Your task to perform on an android device: turn on the 24-hour format for clock Image 0: 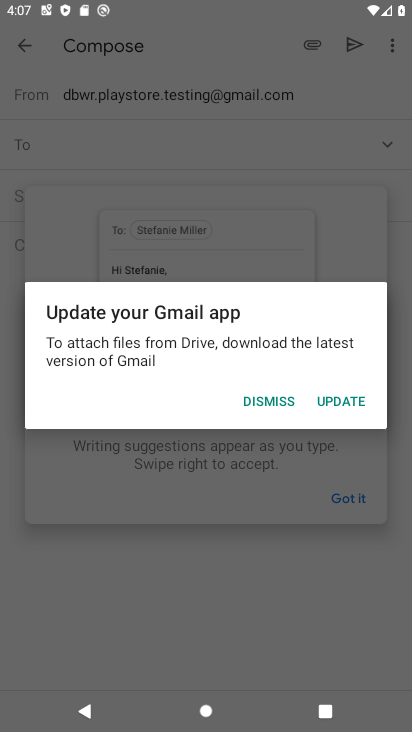
Step 0: press home button
Your task to perform on an android device: turn on the 24-hour format for clock Image 1: 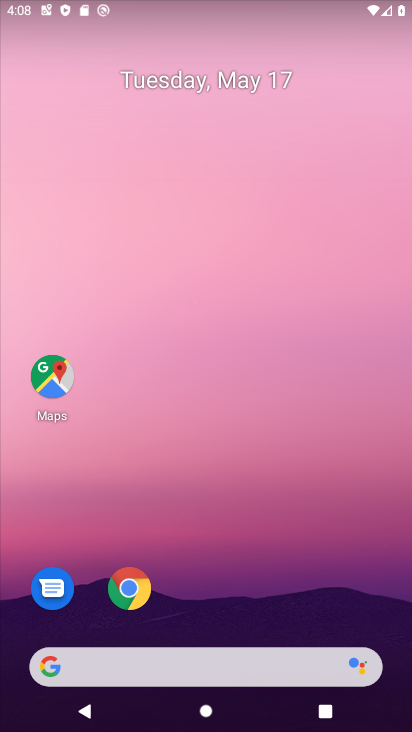
Step 1: drag from (238, 593) to (217, 130)
Your task to perform on an android device: turn on the 24-hour format for clock Image 2: 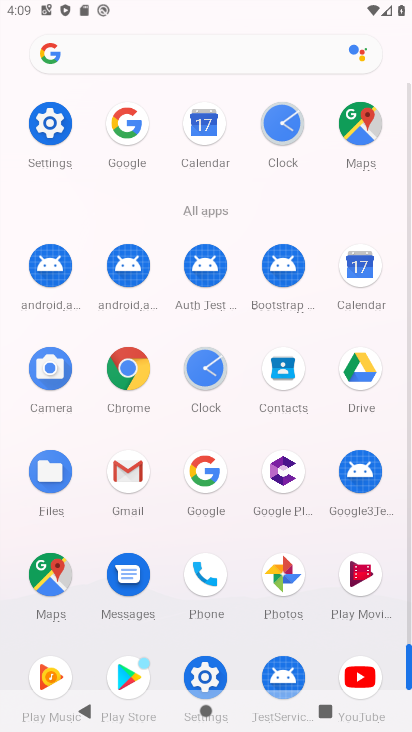
Step 2: click (280, 125)
Your task to perform on an android device: turn on the 24-hour format for clock Image 3: 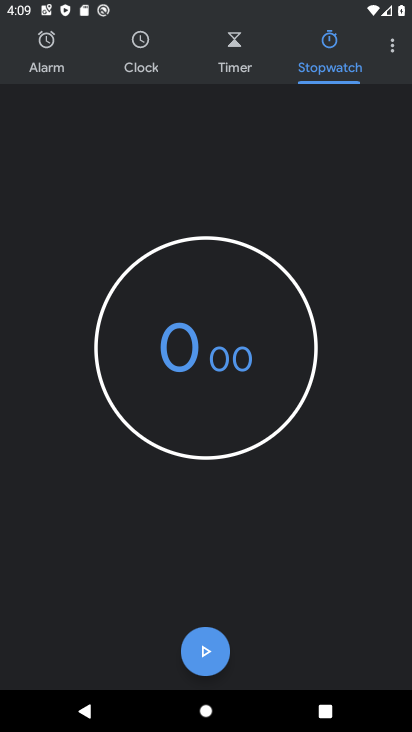
Step 3: click (391, 43)
Your task to perform on an android device: turn on the 24-hour format for clock Image 4: 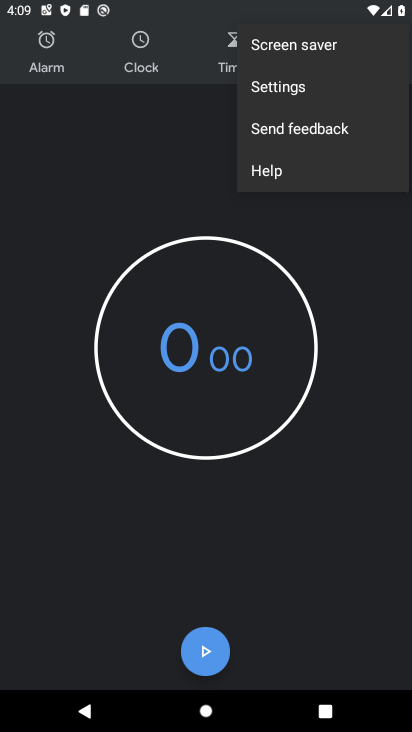
Step 4: click (299, 85)
Your task to perform on an android device: turn on the 24-hour format for clock Image 5: 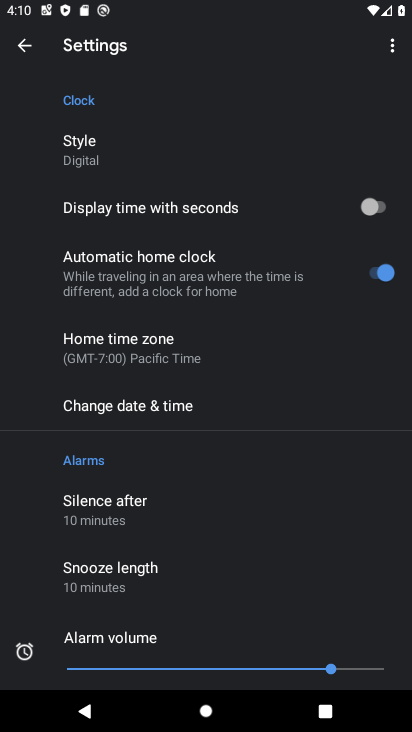
Step 5: click (160, 405)
Your task to perform on an android device: turn on the 24-hour format for clock Image 6: 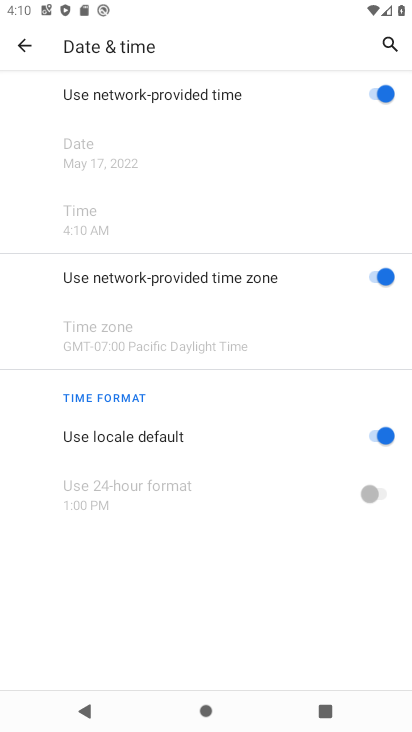
Step 6: click (378, 437)
Your task to perform on an android device: turn on the 24-hour format for clock Image 7: 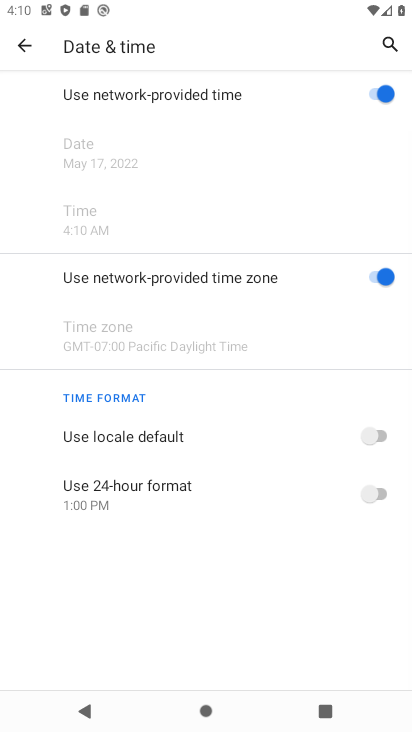
Step 7: click (362, 494)
Your task to perform on an android device: turn on the 24-hour format for clock Image 8: 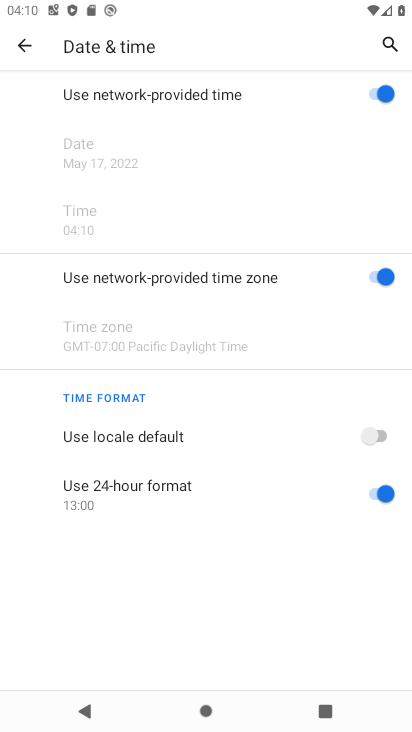
Step 8: task complete